Your task to perform on an android device: Open eBay Image 0: 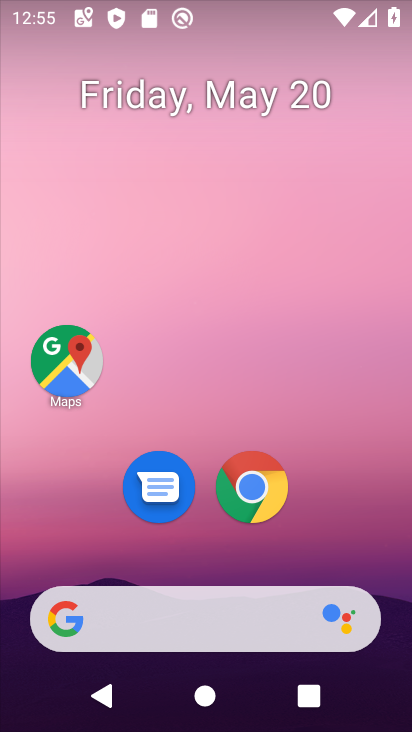
Step 0: click (253, 482)
Your task to perform on an android device: Open eBay Image 1: 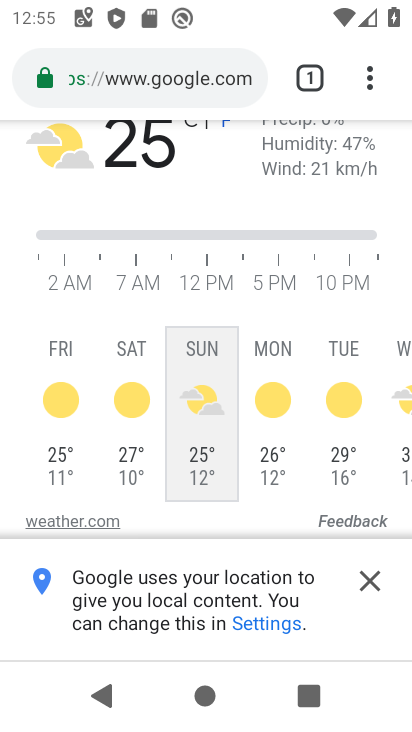
Step 1: click (165, 72)
Your task to perform on an android device: Open eBay Image 2: 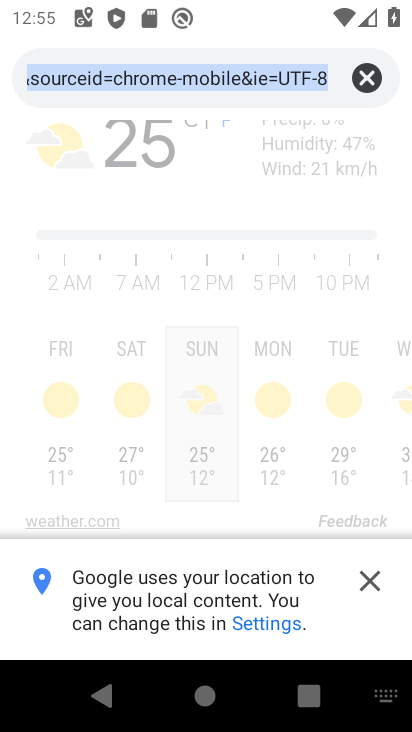
Step 2: click (366, 77)
Your task to perform on an android device: Open eBay Image 3: 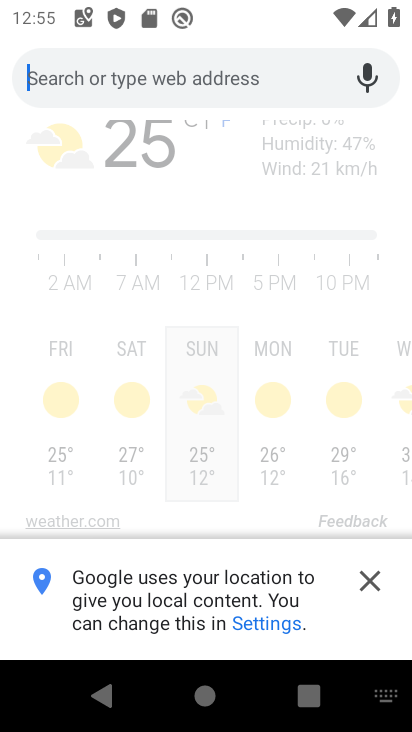
Step 3: type "ebay"
Your task to perform on an android device: Open eBay Image 4: 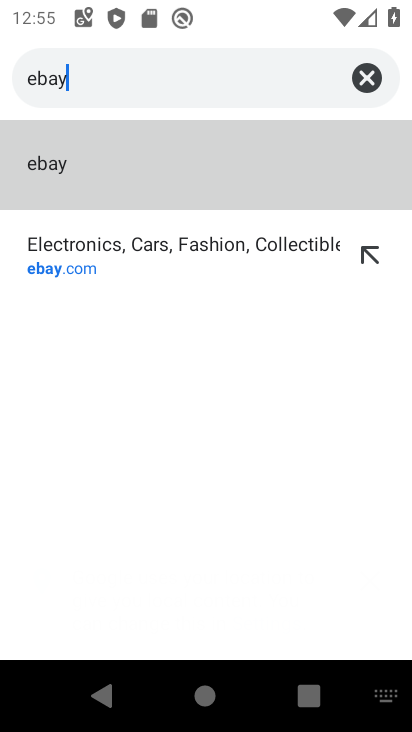
Step 4: click (58, 280)
Your task to perform on an android device: Open eBay Image 5: 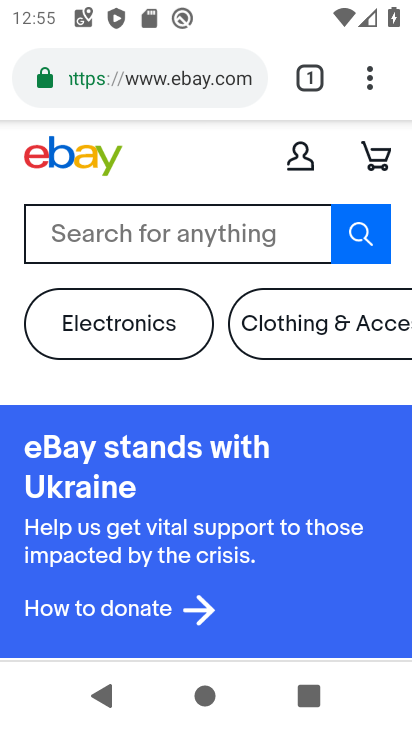
Step 5: task complete